Your task to perform on an android device: Search for 'The Girl on the Train' on Goodreads. Image 0: 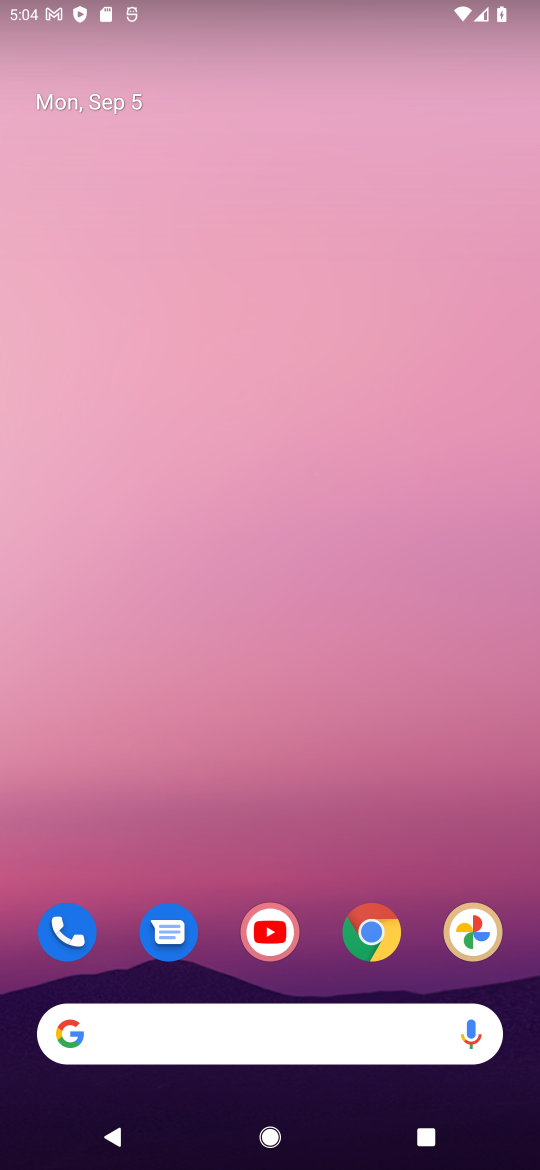
Step 0: drag from (304, 992) to (288, 95)
Your task to perform on an android device: Search for 'The Girl on the Train' on Goodreads. Image 1: 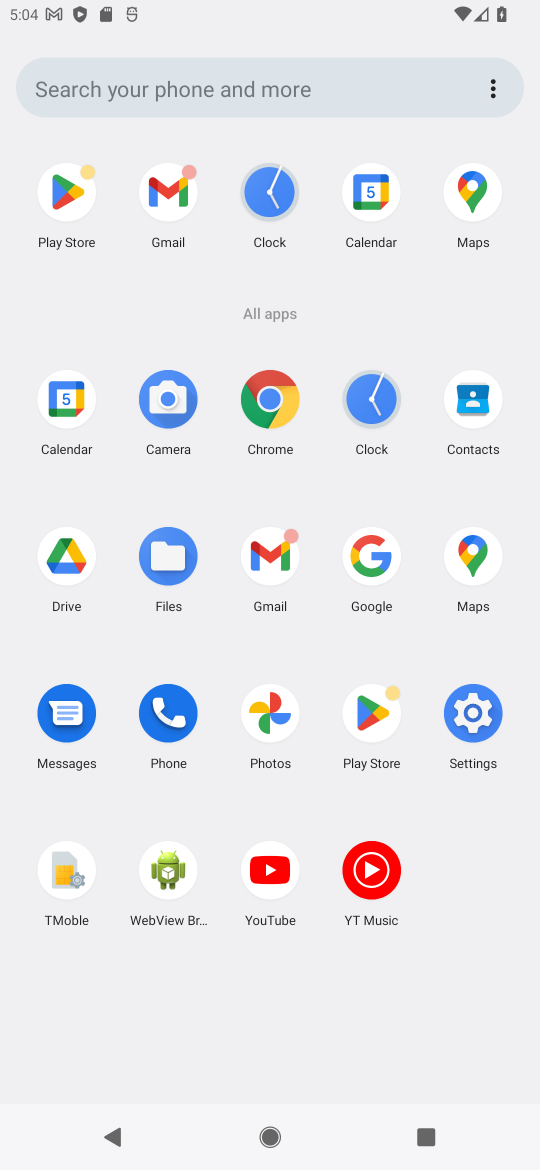
Step 1: click (368, 543)
Your task to perform on an android device: Search for 'The Girl on the Train' on Goodreads. Image 2: 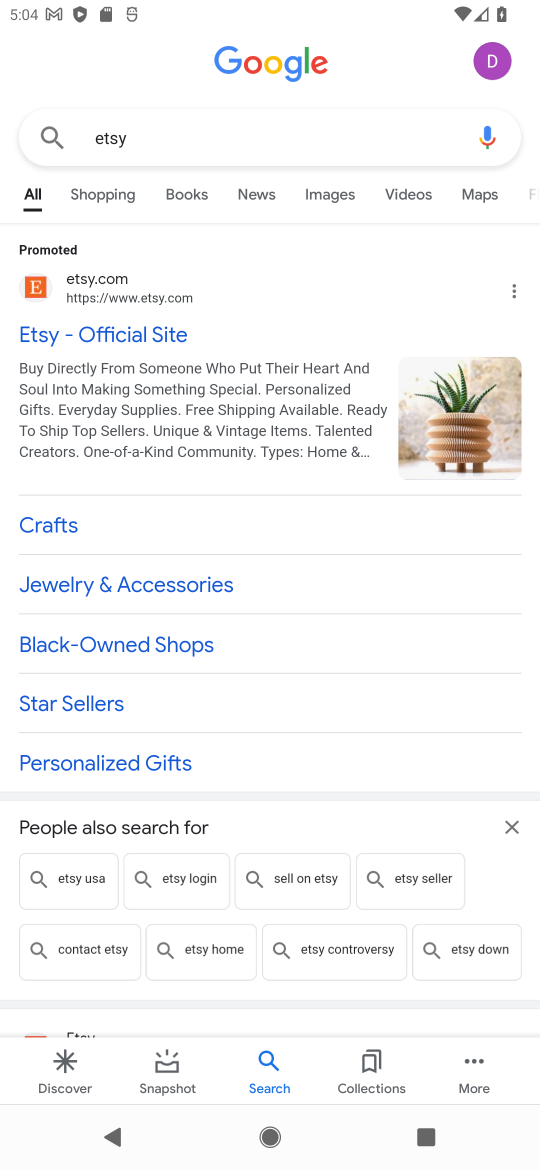
Step 2: click (148, 155)
Your task to perform on an android device: Search for 'The Girl on the Train' on Goodreads. Image 3: 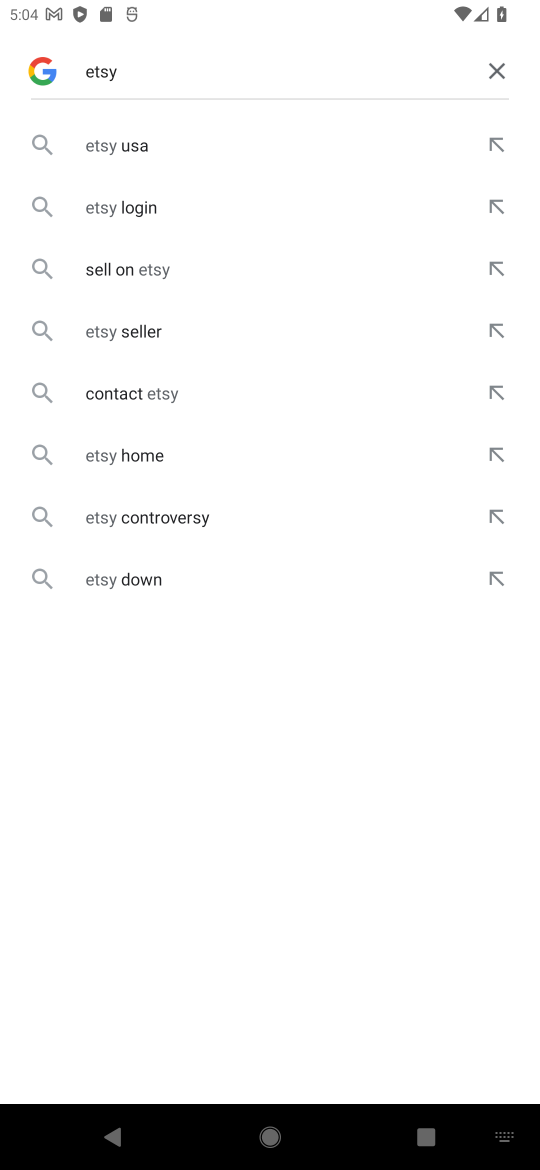
Step 3: click (502, 66)
Your task to perform on an android device: Search for 'The Girl on the Train' on Goodreads. Image 4: 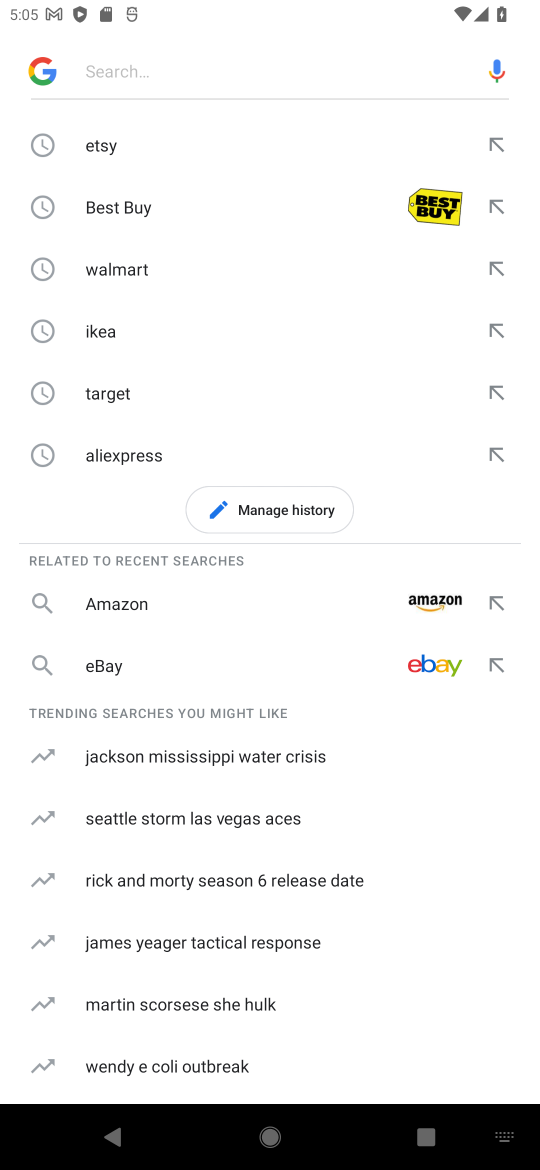
Step 4: type "Goodreads"
Your task to perform on an android device: Search for 'The Girl on the Train' on Goodreads. Image 5: 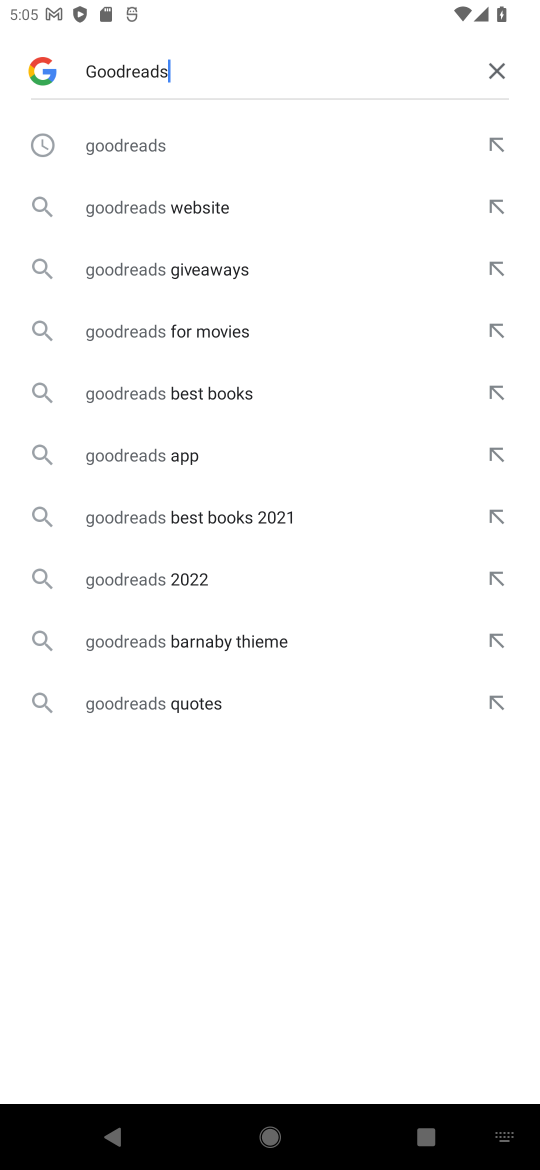
Step 5: click (106, 146)
Your task to perform on an android device: Search for 'The Girl on the Train' on Goodreads. Image 6: 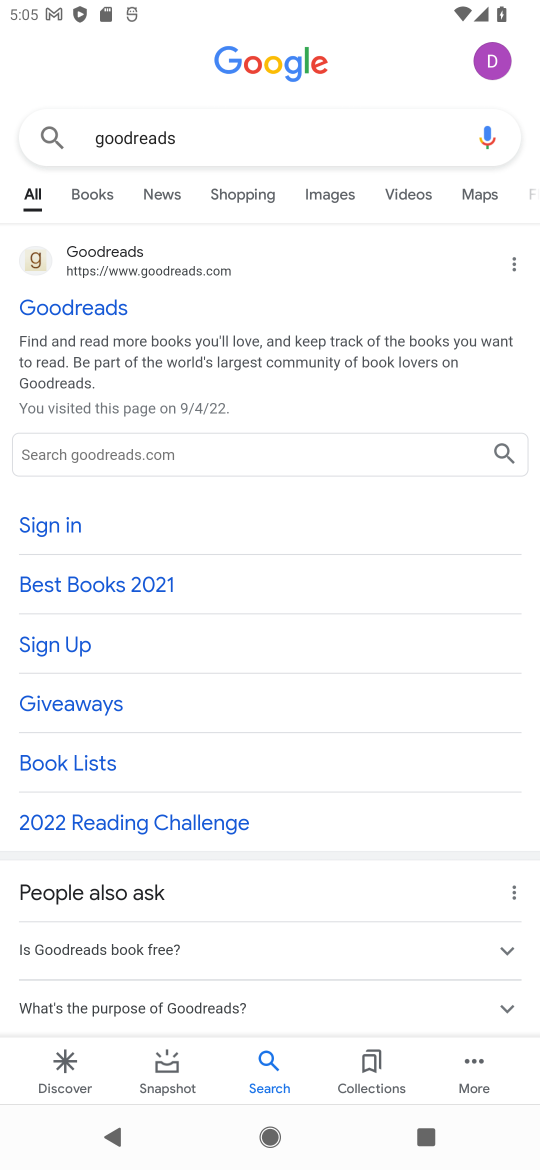
Step 6: click (101, 302)
Your task to perform on an android device: Search for 'The Girl on the Train' on Goodreads. Image 7: 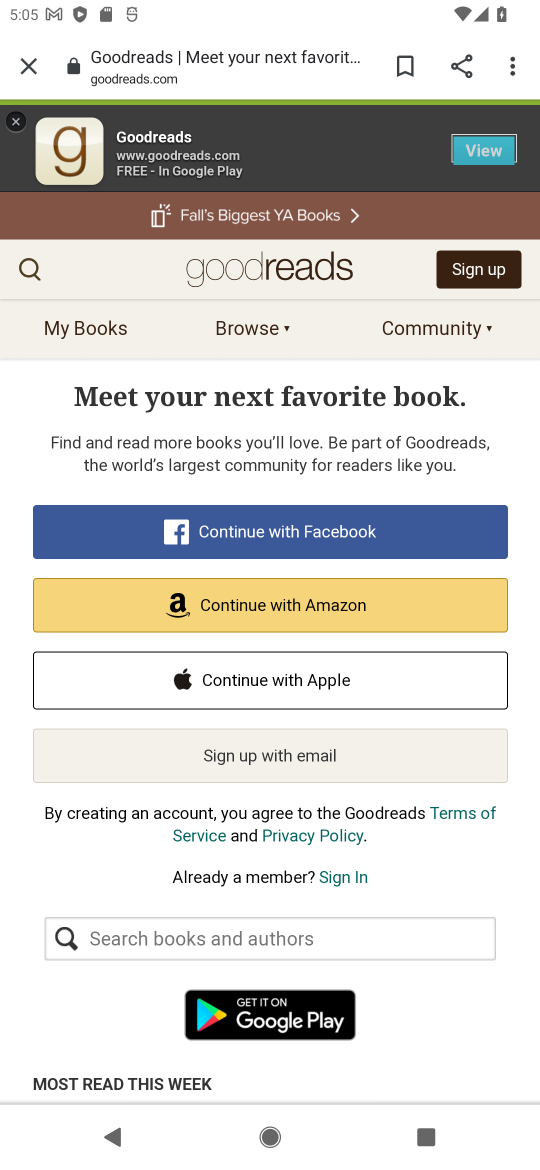
Step 7: click (21, 268)
Your task to perform on an android device: Search for 'The Girl on the Train' on Goodreads. Image 8: 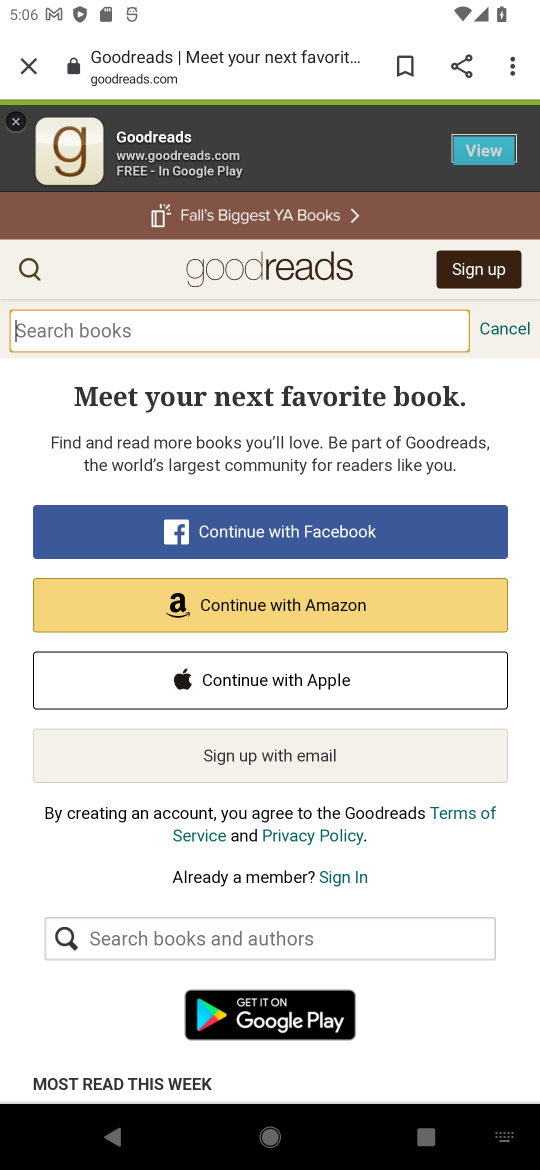
Step 8: type "The Girl on the Train'"
Your task to perform on an android device: Search for 'The Girl on the Train' on Goodreads. Image 9: 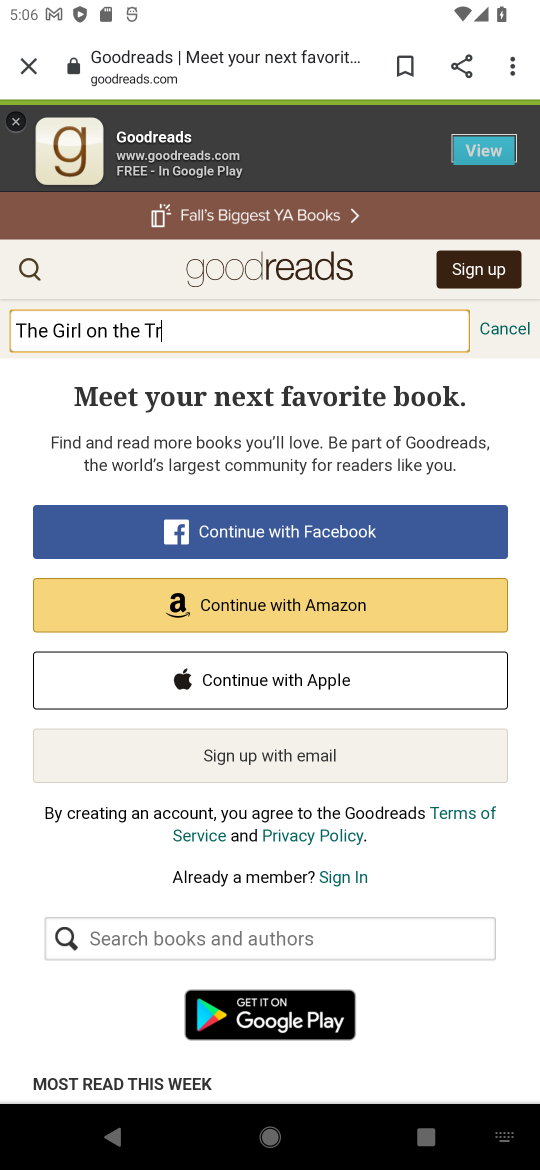
Step 9: type ""
Your task to perform on an android device: Search for 'The Girl on the Train' on Goodreads. Image 10: 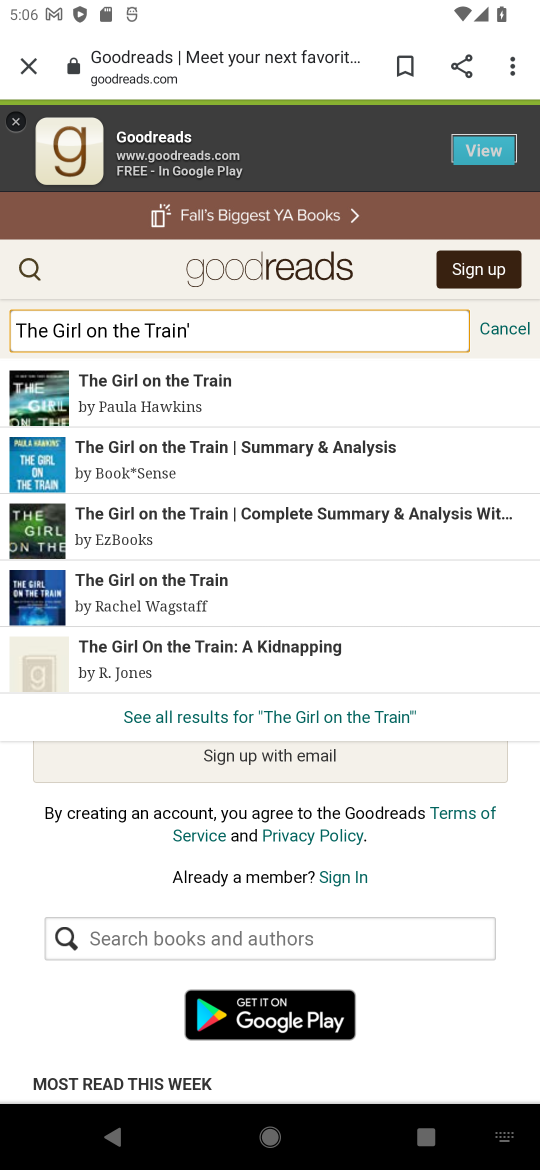
Step 10: click (158, 394)
Your task to perform on an android device: Search for 'The Girl on the Train' on Goodreads. Image 11: 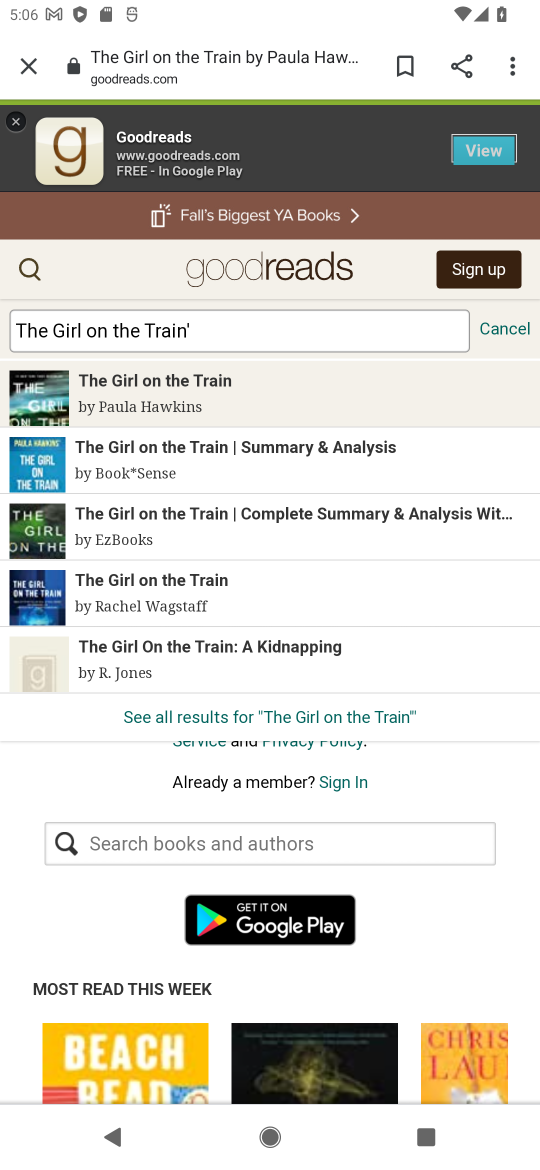
Step 11: click (158, 397)
Your task to perform on an android device: Search for 'The Girl on the Train' on Goodreads. Image 12: 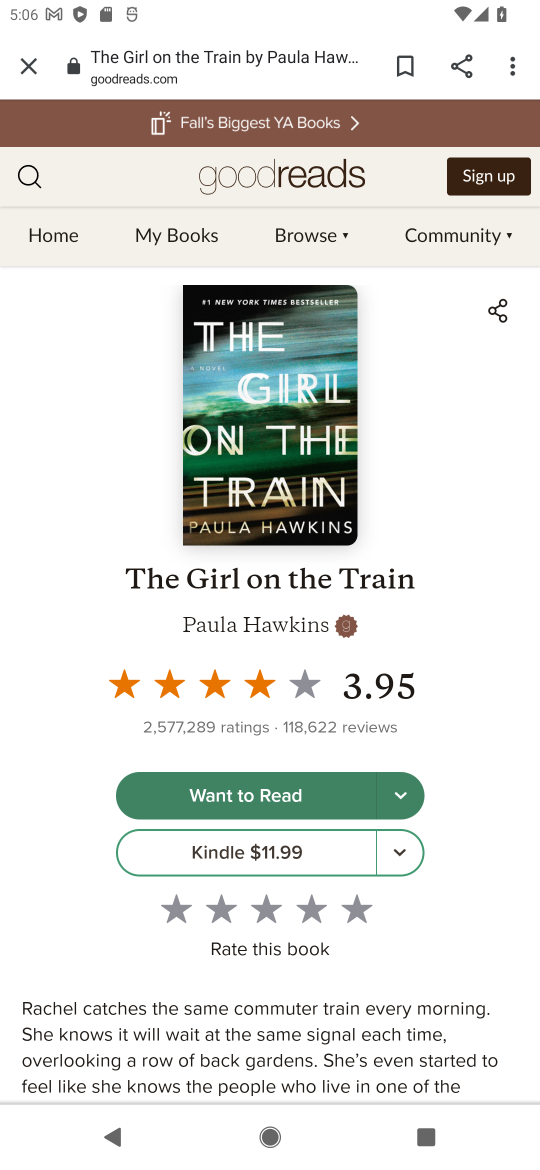
Step 12: task complete